Your task to perform on an android device: Do I have any events this weekend? Image 0: 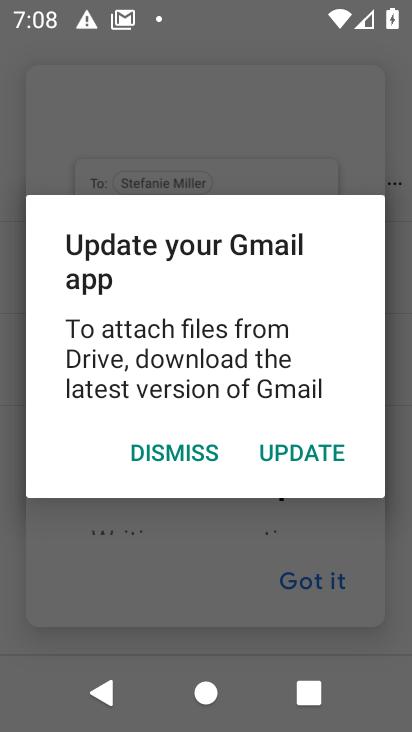
Step 0: task complete